Your task to perform on an android device: stop showing notifications on the lock screen Image 0: 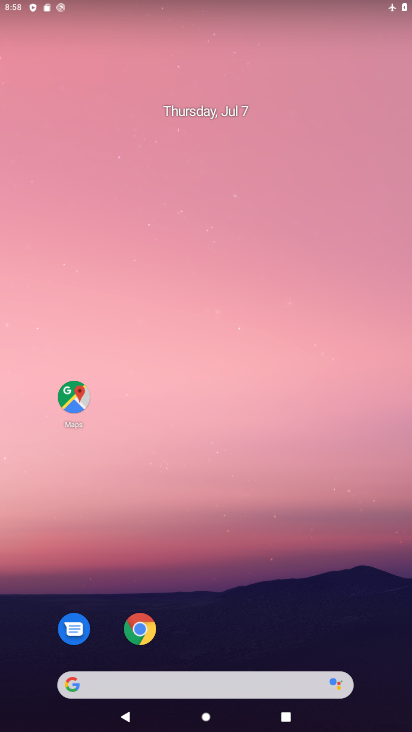
Step 0: drag from (252, 584) to (226, 262)
Your task to perform on an android device: stop showing notifications on the lock screen Image 1: 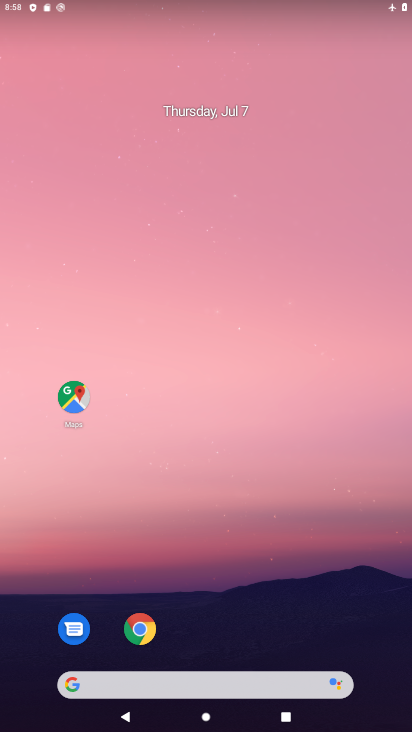
Step 1: drag from (222, 562) to (235, 136)
Your task to perform on an android device: stop showing notifications on the lock screen Image 2: 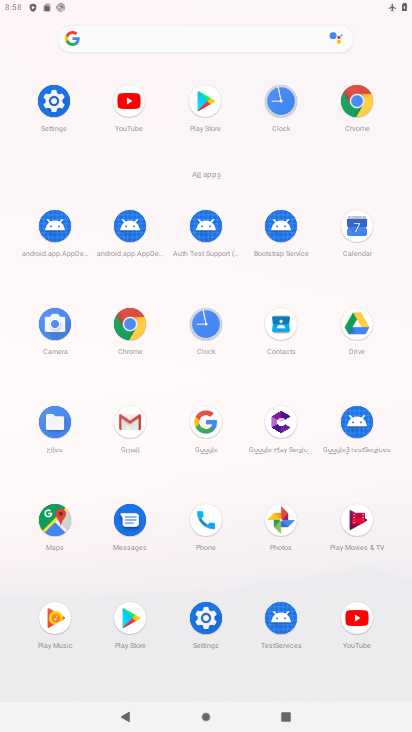
Step 2: click (50, 103)
Your task to perform on an android device: stop showing notifications on the lock screen Image 3: 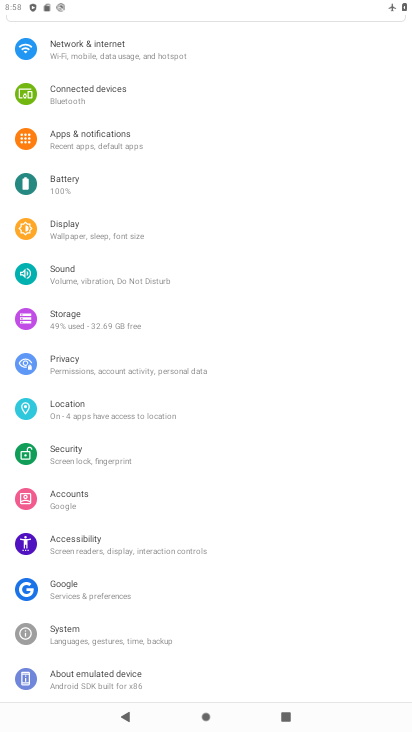
Step 3: click (103, 142)
Your task to perform on an android device: stop showing notifications on the lock screen Image 4: 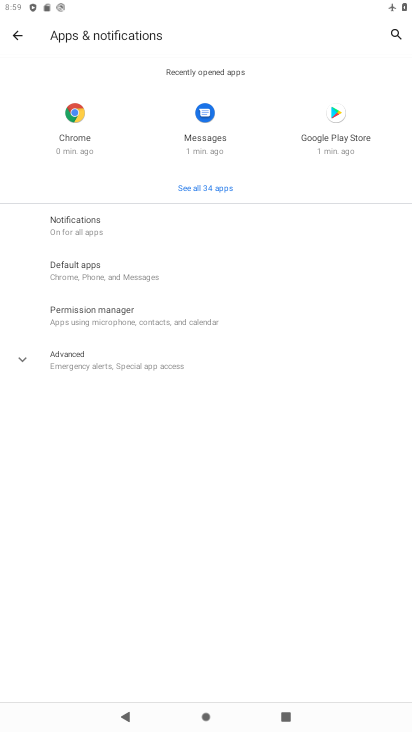
Step 4: click (75, 222)
Your task to perform on an android device: stop showing notifications on the lock screen Image 5: 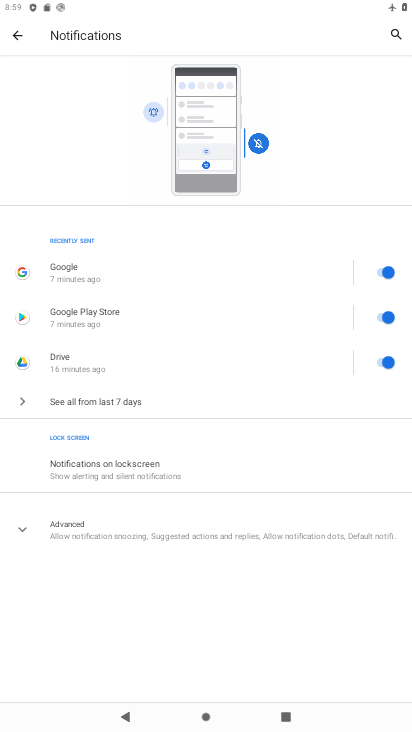
Step 5: click (108, 457)
Your task to perform on an android device: stop showing notifications on the lock screen Image 6: 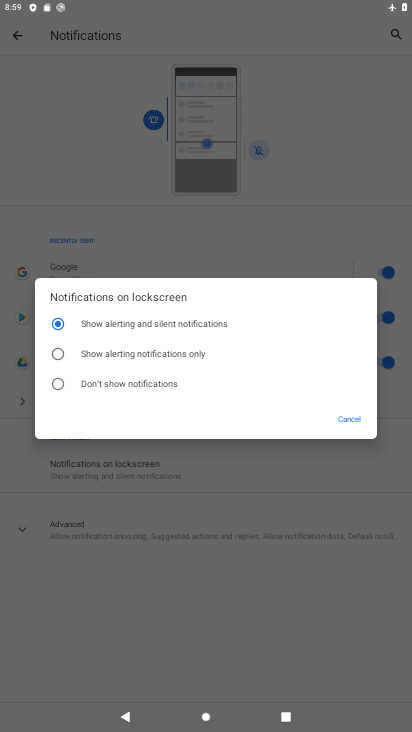
Step 6: click (57, 385)
Your task to perform on an android device: stop showing notifications on the lock screen Image 7: 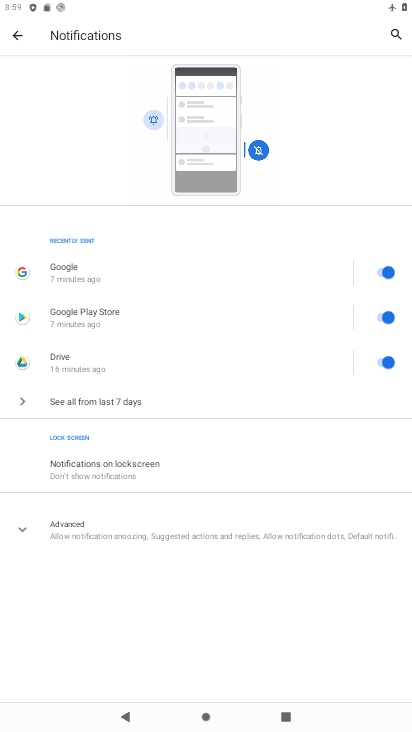
Step 7: task complete